Your task to perform on an android device: toggle pop-ups in chrome Image 0: 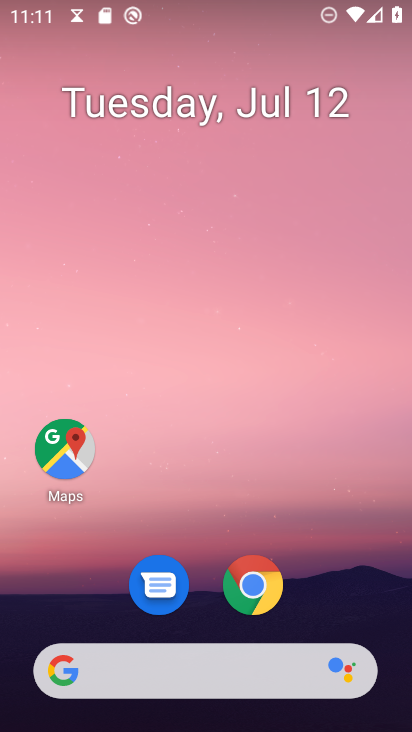
Step 0: click (249, 594)
Your task to perform on an android device: toggle pop-ups in chrome Image 1: 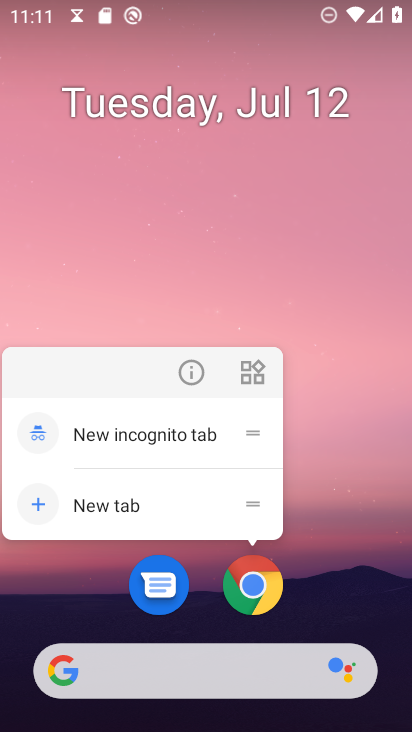
Step 1: click (256, 588)
Your task to perform on an android device: toggle pop-ups in chrome Image 2: 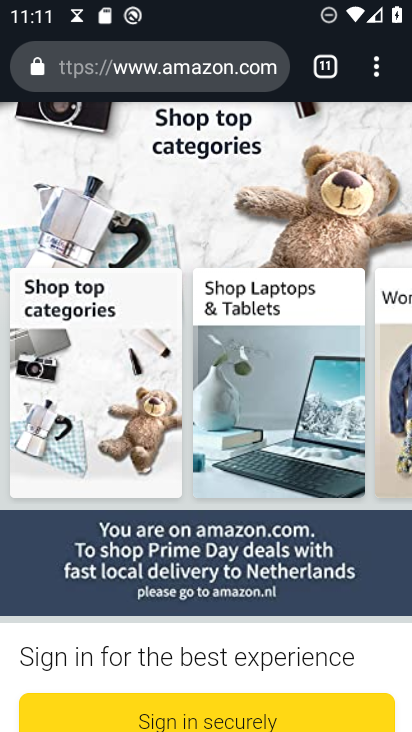
Step 2: drag from (373, 68) to (230, 591)
Your task to perform on an android device: toggle pop-ups in chrome Image 3: 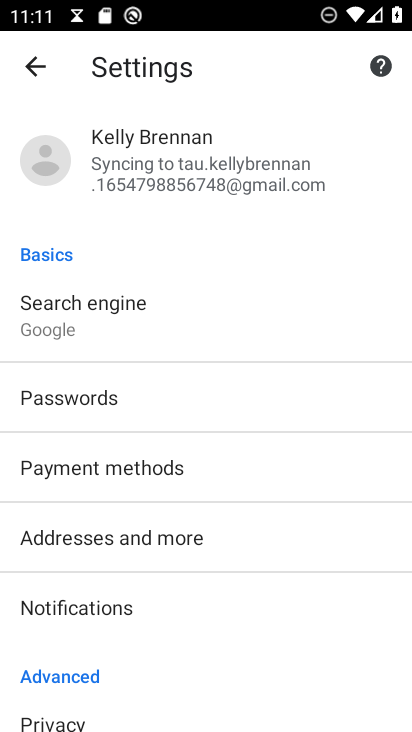
Step 3: drag from (200, 650) to (213, 255)
Your task to perform on an android device: toggle pop-ups in chrome Image 4: 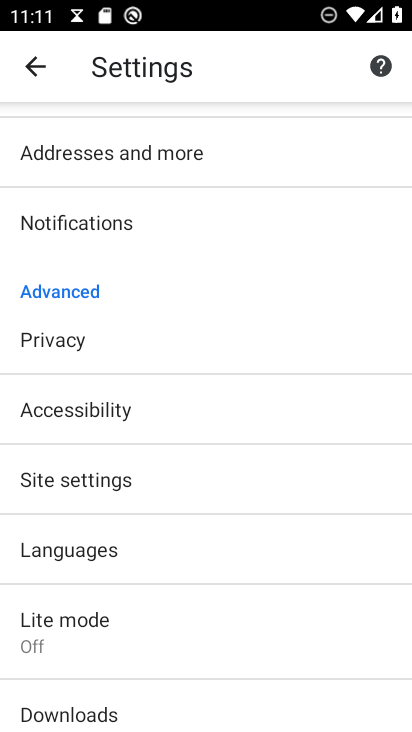
Step 4: click (120, 491)
Your task to perform on an android device: toggle pop-ups in chrome Image 5: 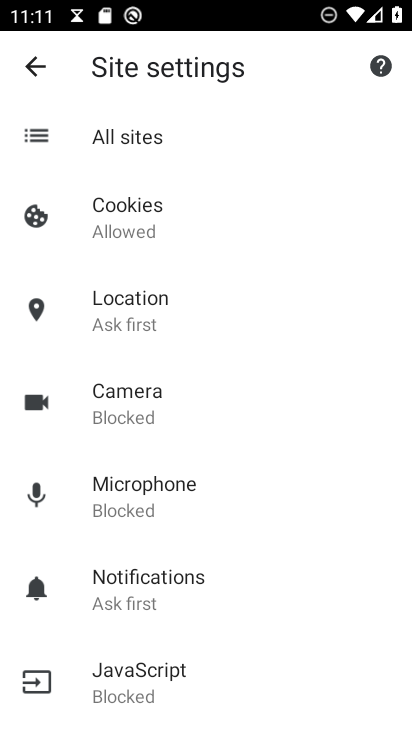
Step 5: drag from (195, 643) to (248, 339)
Your task to perform on an android device: toggle pop-ups in chrome Image 6: 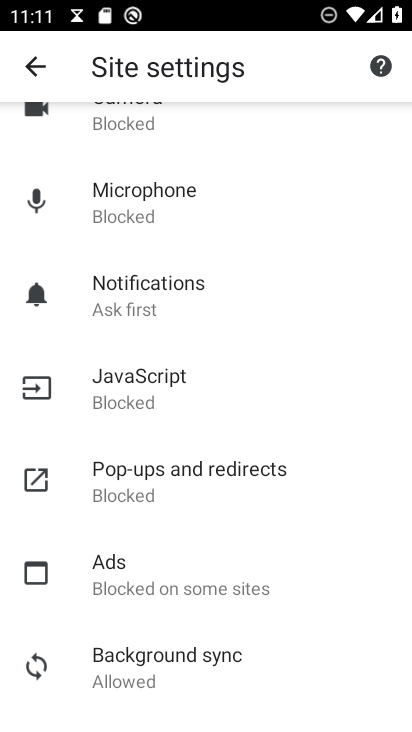
Step 6: click (177, 469)
Your task to perform on an android device: toggle pop-ups in chrome Image 7: 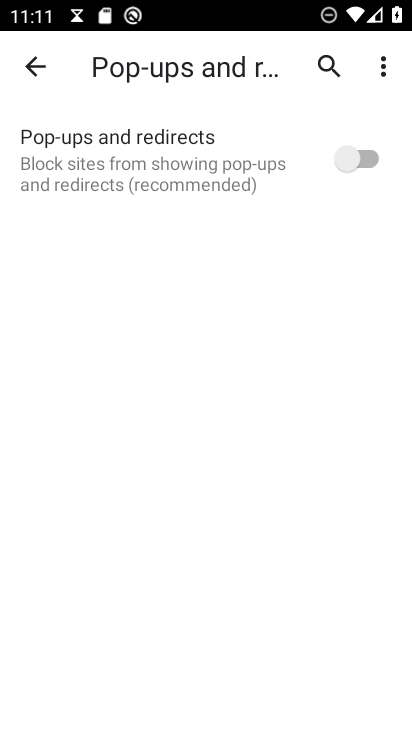
Step 7: click (369, 157)
Your task to perform on an android device: toggle pop-ups in chrome Image 8: 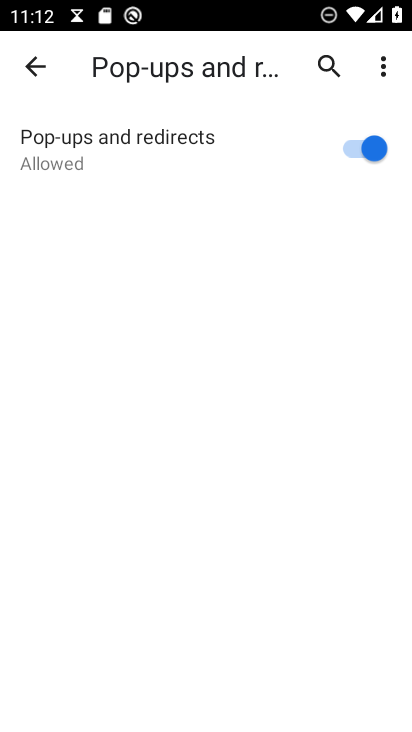
Step 8: task complete